Your task to perform on an android device: Open settings Image 0: 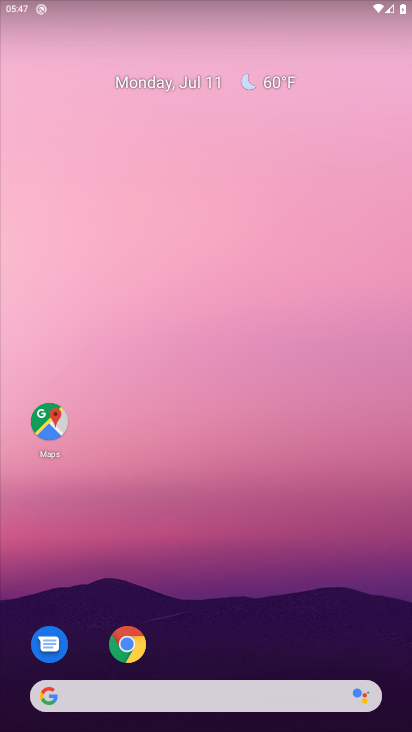
Step 0: drag from (209, 665) to (209, 467)
Your task to perform on an android device: Open settings Image 1: 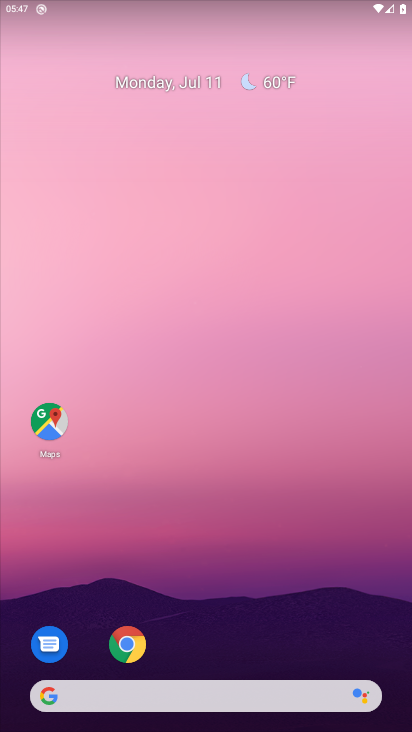
Step 1: drag from (245, 671) to (231, 351)
Your task to perform on an android device: Open settings Image 2: 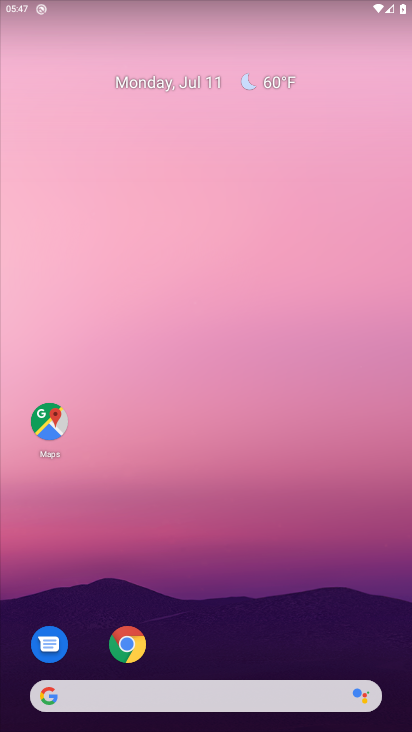
Step 2: drag from (163, 663) to (163, 397)
Your task to perform on an android device: Open settings Image 3: 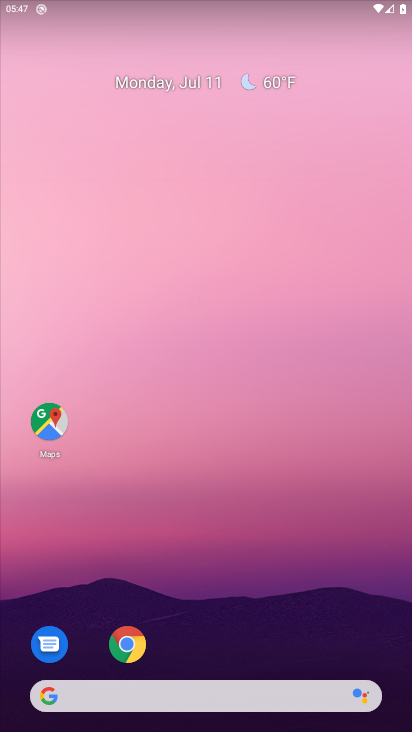
Step 3: drag from (179, 654) to (270, 352)
Your task to perform on an android device: Open settings Image 4: 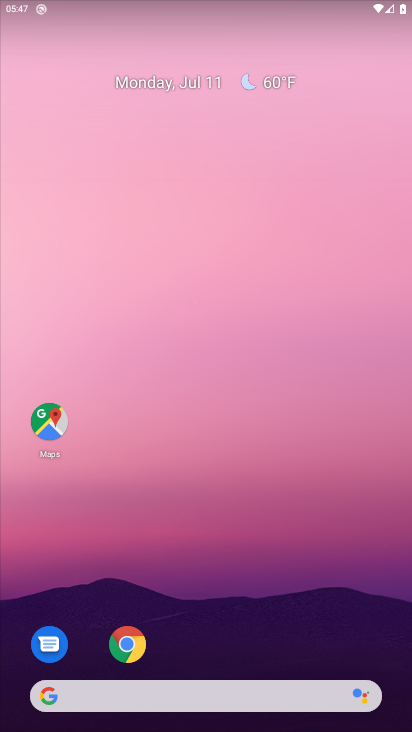
Step 4: drag from (267, 668) to (263, 211)
Your task to perform on an android device: Open settings Image 5: 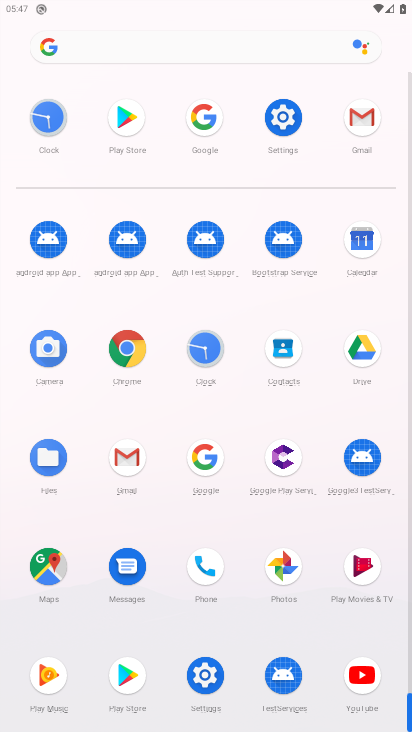
Step 5: click (283, 112)
Your task to perform on an android device: Open settings Image 6: 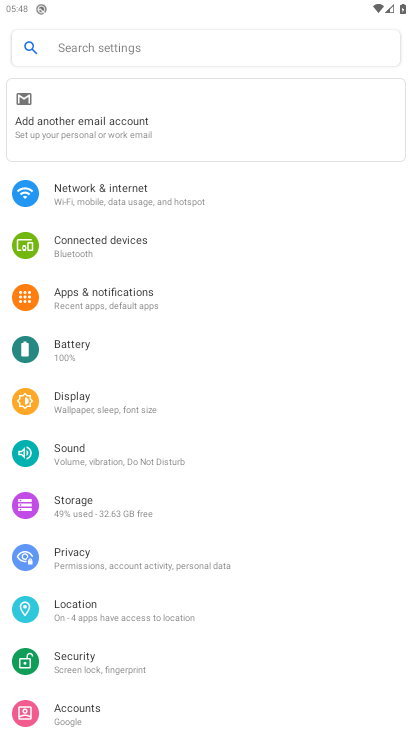
Step 6: task complete